Your task to perform on an android device: turn off airplane mode Image 0: 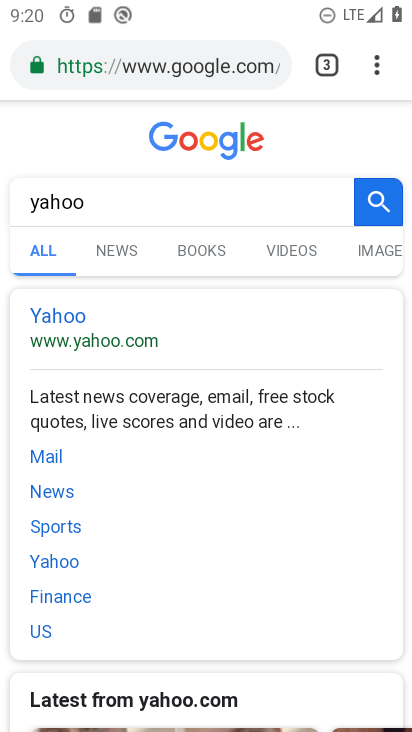
Step 0: drag from (285, 6) to (285, 502)
Your task to perform on an android device: turn off airplane mode Image 1: 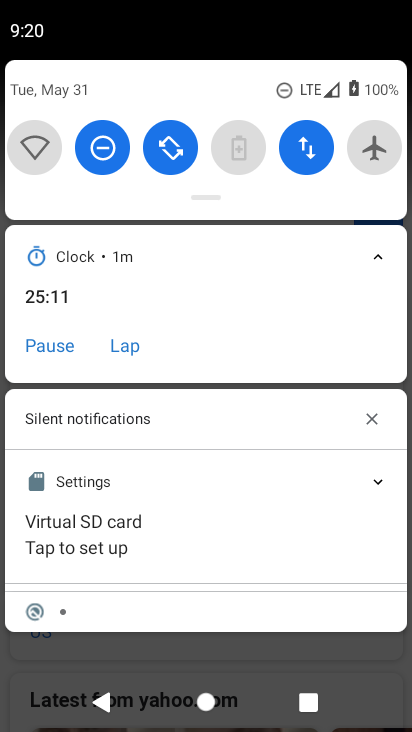
Step 1: task complete